Your task to perform on an android device: toggle improve location accuracy Image 0: 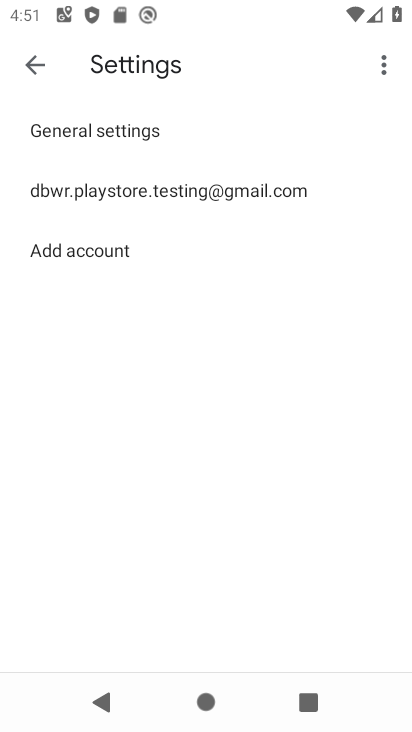
Step 0: press home button
Your task to perform on an android device: toggle improve location accuracy Image 1: 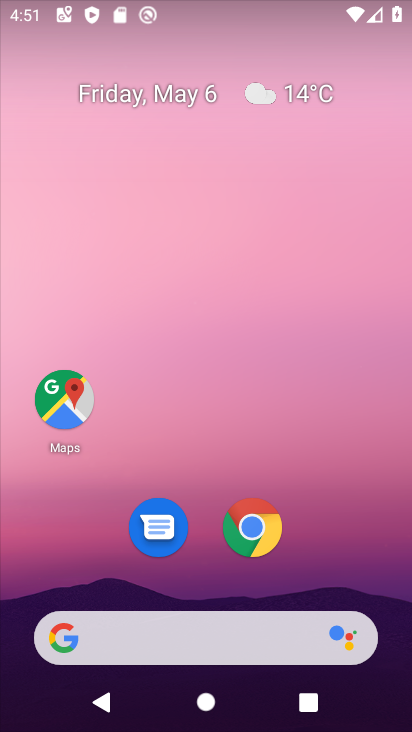
Step 1: drag from (321, 507) to (363, 133)
Your task to perform on an android device: toggle improve location accuracy Image 2: 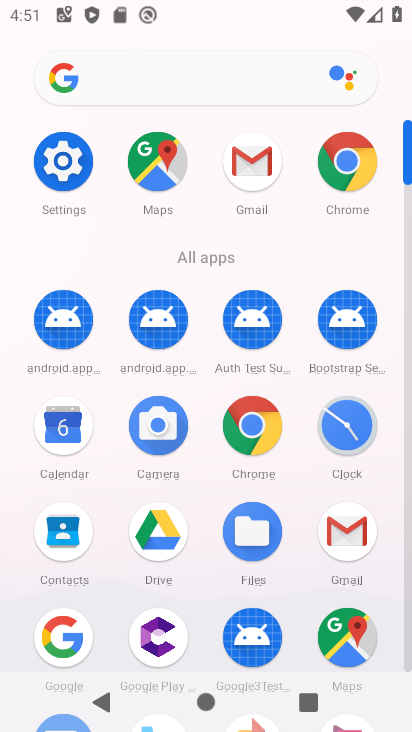
Step 2: click (57, 161)
Your task to perform on an android device: toggle improve location accuracy Image 3: 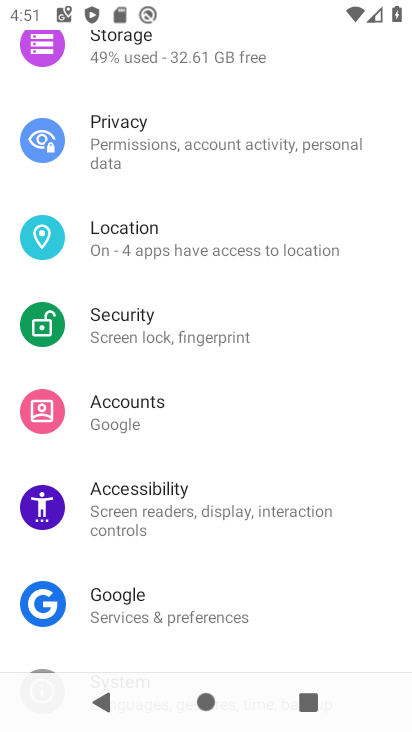
Step 3: click (175, 237)
Your task to perform on an android device: toggle improve location accuracy Image 4: 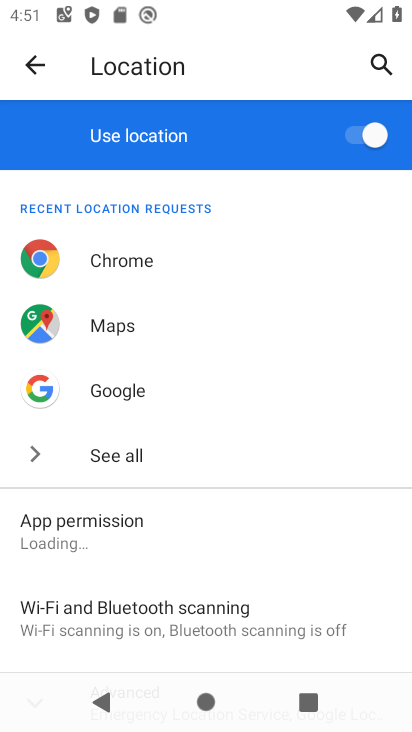
Step 4: drag from (180, 586) to (202, 225)
Your task to perform on an android device: toggle improve location accuracy Image 5: 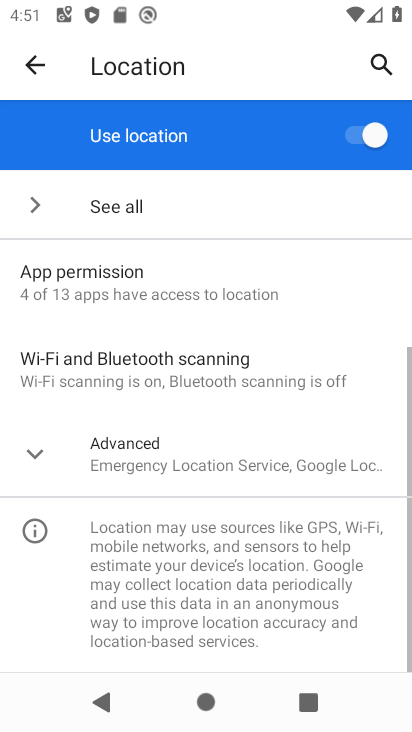
Step 5: click (146, 461)
Your task to perform on an android device: toggle improve location accuracy Image 6: 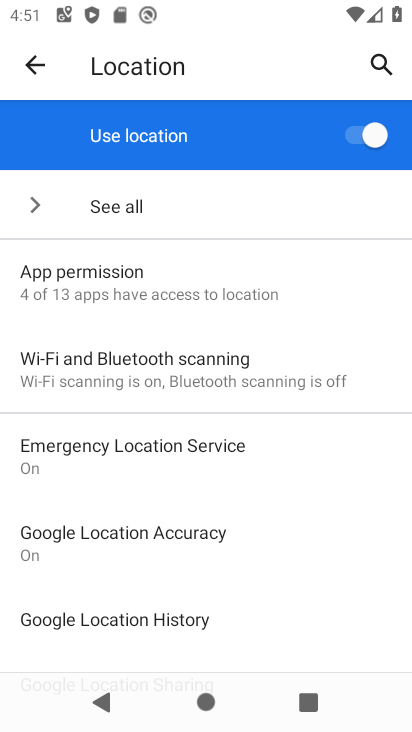
Step 6: drag from (168, 553) to (216, 200)
Your task to perform on an android device: toggle improve location accuracy Image 7: 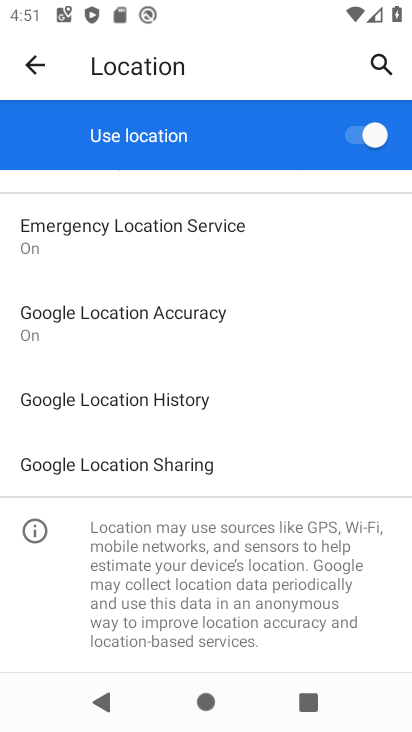
Step 7: click (176, 306)
Your task to perform on an android device: toggle improve location accuracy Image 8: 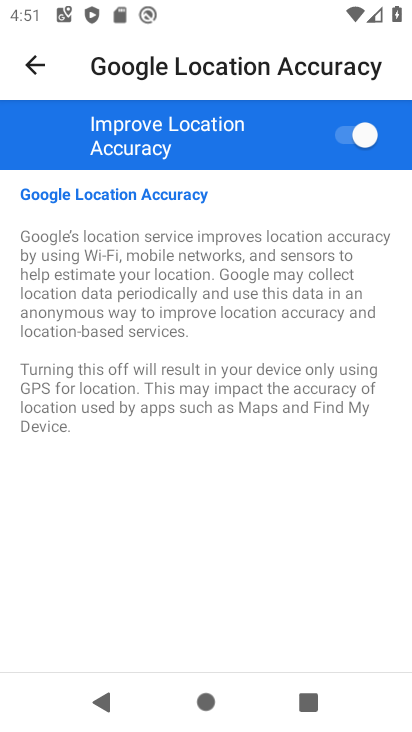
Step 8: click (342, 136)
Your task to perform on an android device: toggle improve location accuracy Image 9: 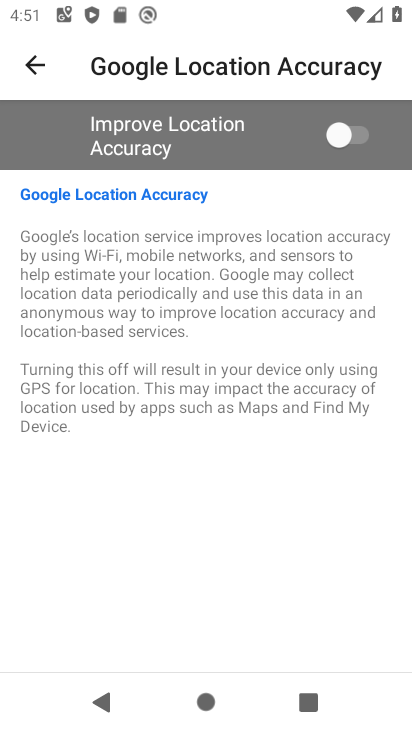
Step 9: task complete